Your task to perform on an android device: Check the weather Image 0: 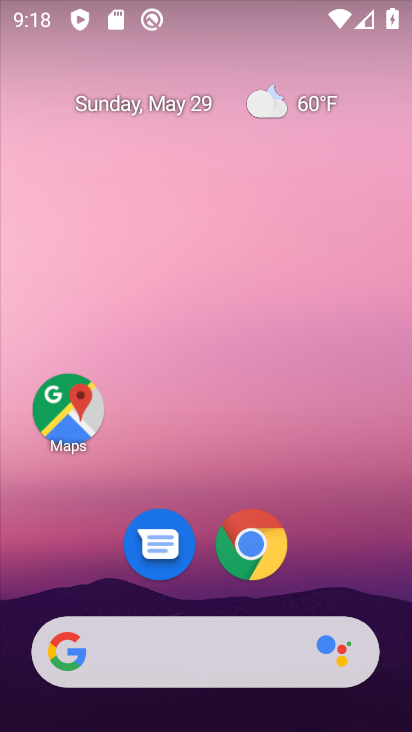
Step 0: drag from (331, 559) to (351, 88)
Your task to perform on an android device: Check the weather Image 1: 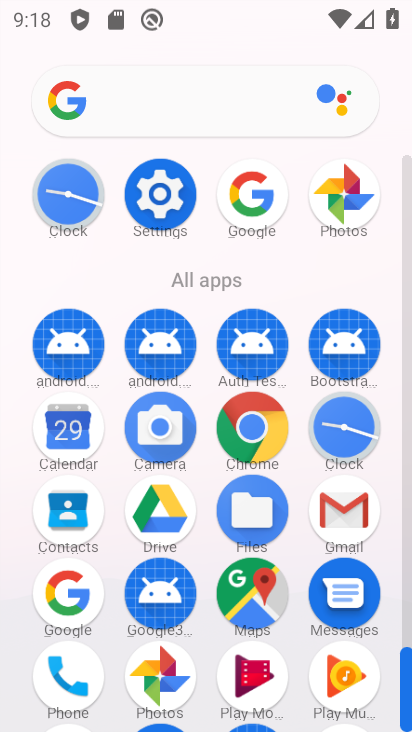
Step 1: click (251, 197)
Your task to perform on an android device: Check the weather Image 2: 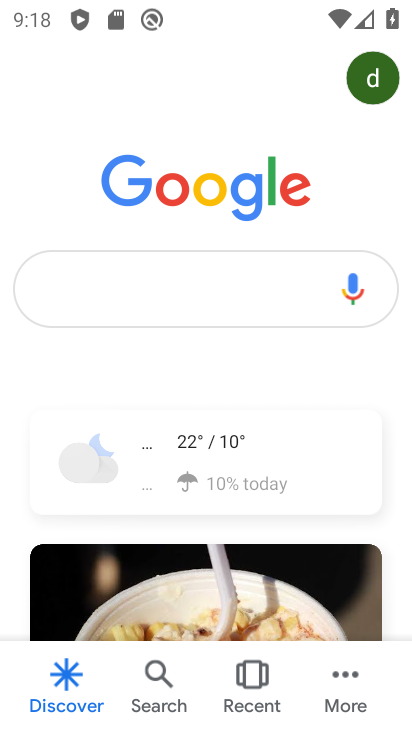
Step 2: click (161, 280)
Your task to perform on an android device: Check the weather Image 3: 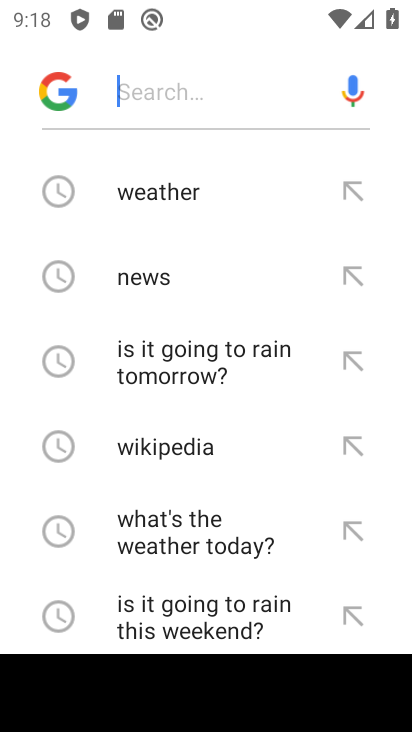
Step 3: click (154, 200)
Your task to perform on an android device: Check the weather Image 4: 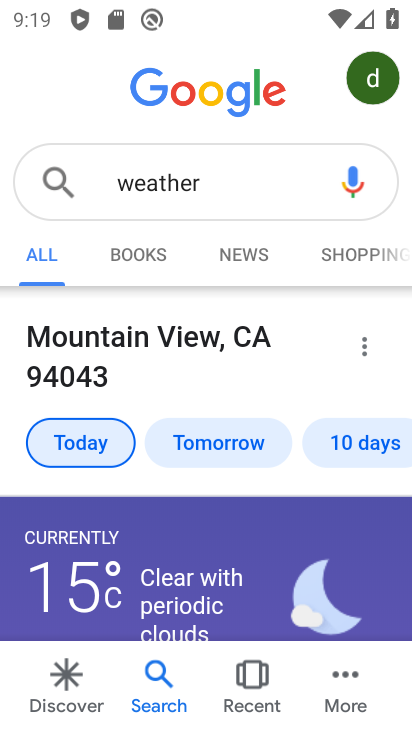
Step 4: task complete